Your task to perform on an android device: Open the web browser Image 0: 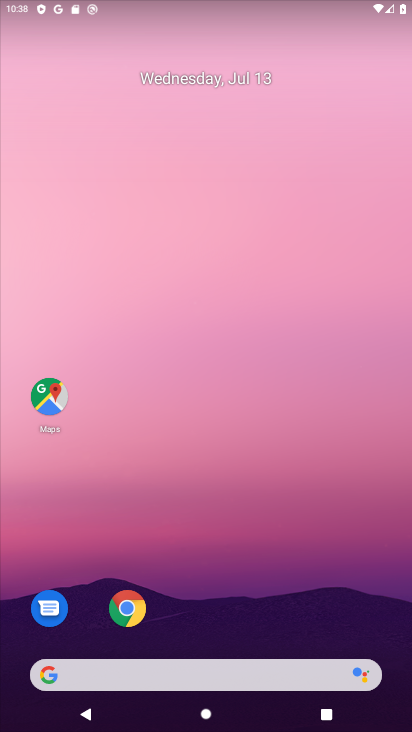
Step 0: click (130, 606)
Your task to perform on an android device: Open the web browser Image 1: 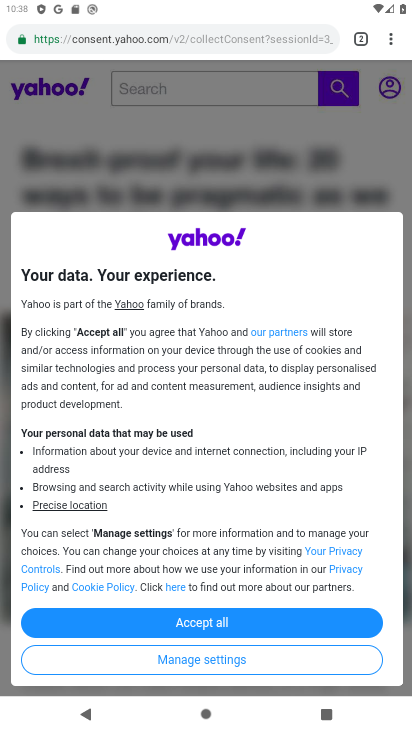
Step 1: task complete